Your task to perform on an android device: Go to Maps Image 0: 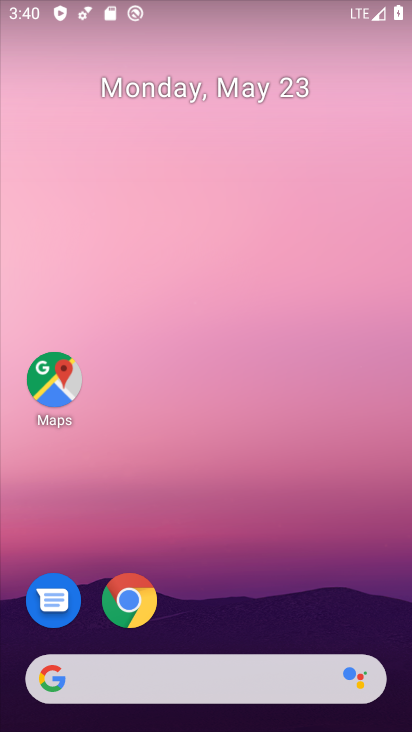
Step 0: click (51, 391)
Your task to perform on an android device: Go to Maps Image 1: 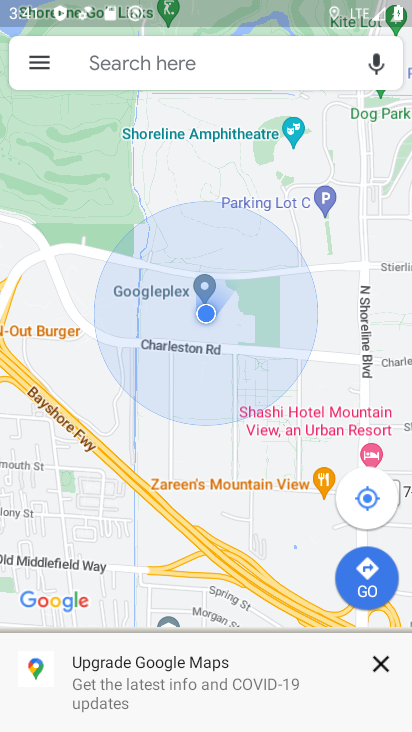
Step 1: task complete